Your task to perform on an android device: turn on the 12-hour format for clock Image 0: 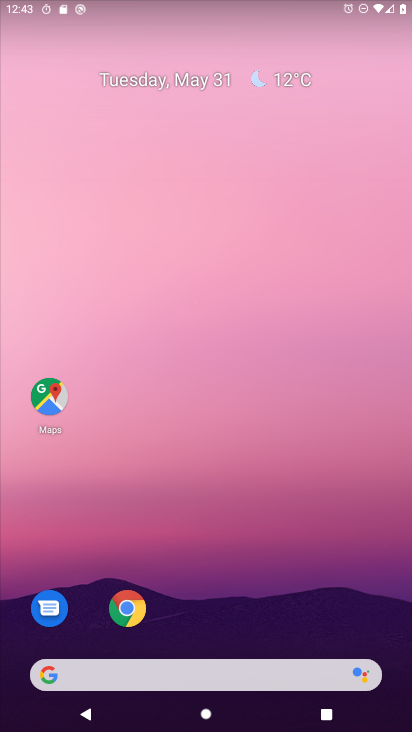
Step 0: drag from (308, 644) to (317, 2)
Your task to perform on an android device: turn on the 12-hour format for clock Image 1: 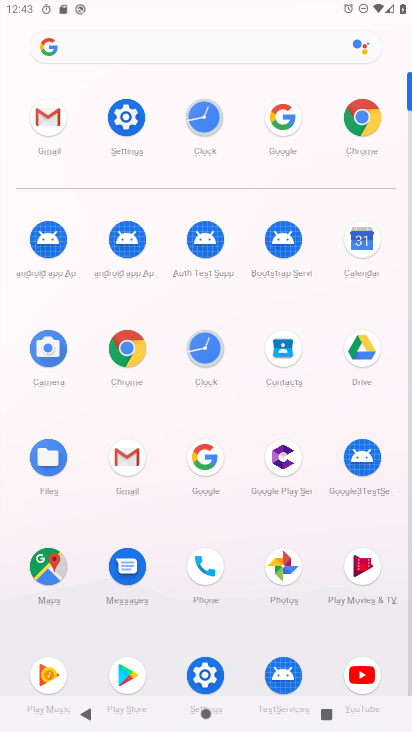
Step 1: click (202, 125)
Your task to perform on an android device: turn on the 12-hour format for clock Image 2: 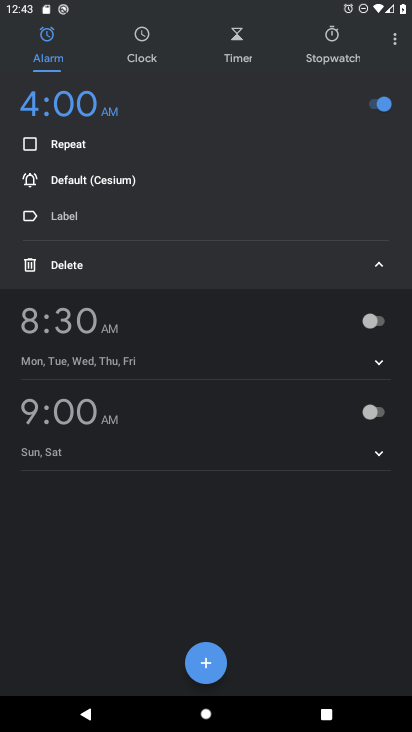
Step 2: click (397, 41)
Your task to perform on an android device: turn on the 12-hour format for clock Image 3: 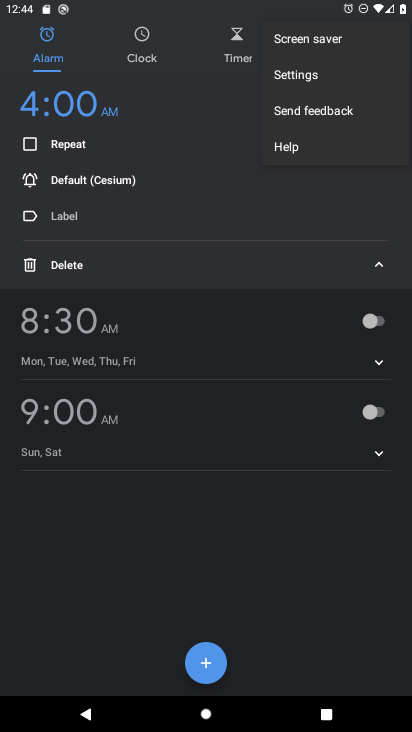
Step 3: click (295, 79)
Your task to perform on an android device: turn on the 12-hour format for clock Image 4: 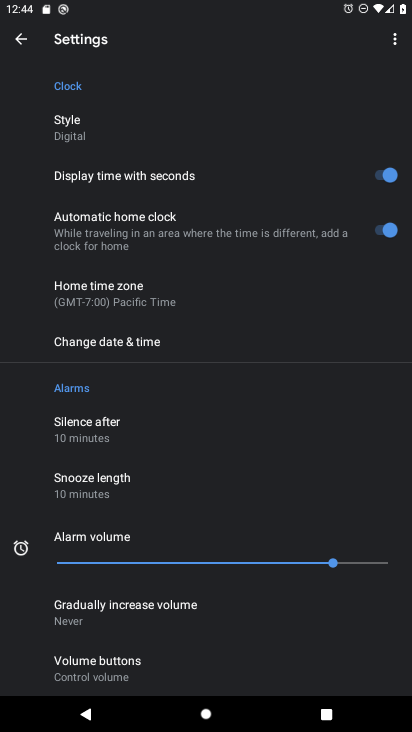
Step 4: click (104, 341)
Your task to perform on an android device: turn on the 12-hour format for clock Image 5: 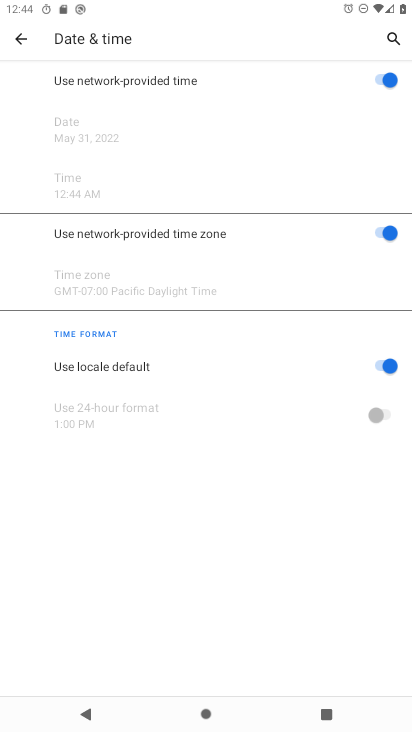
Step 5: task complete